Your task to perform on an android device: create a new album in the google photos Image 0: 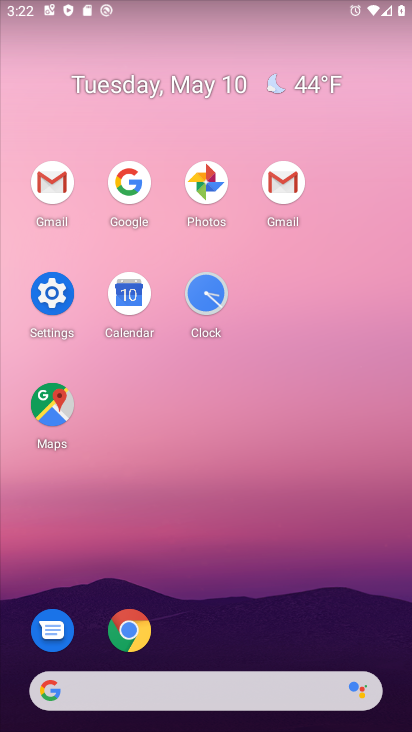
Step 0: click (196, 179)
Your task to perform on an android device: create a new album in the google photos Image 1: 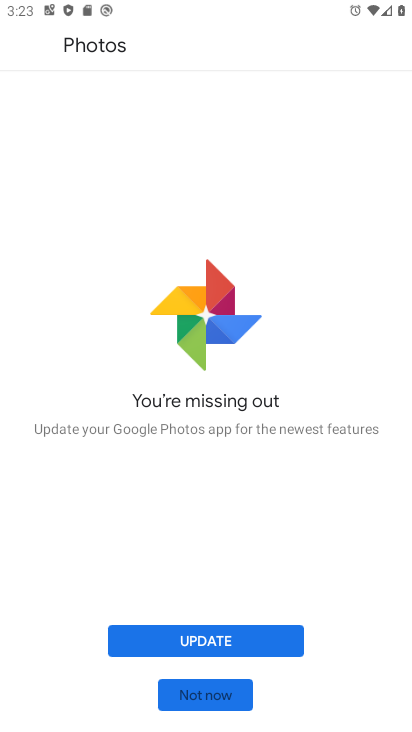
Step 1: click (198, 646)
Your task to perform on an android device: create a new album in the google photos Image 2: 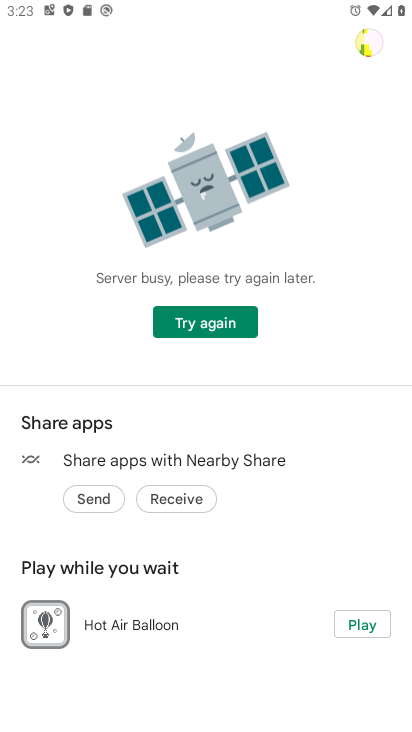
Step 2: click (170, 322)
Your task to perform on an android device: create a new album in the google photos Image 3: 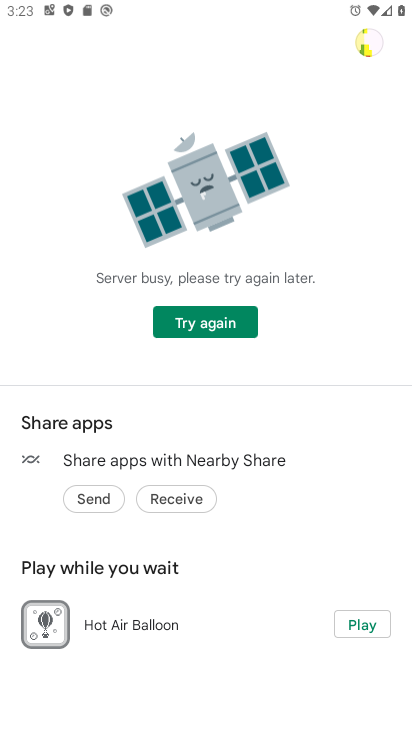
Step 3: task complete